Your task to perform on an android device: Check the weather Image 0: 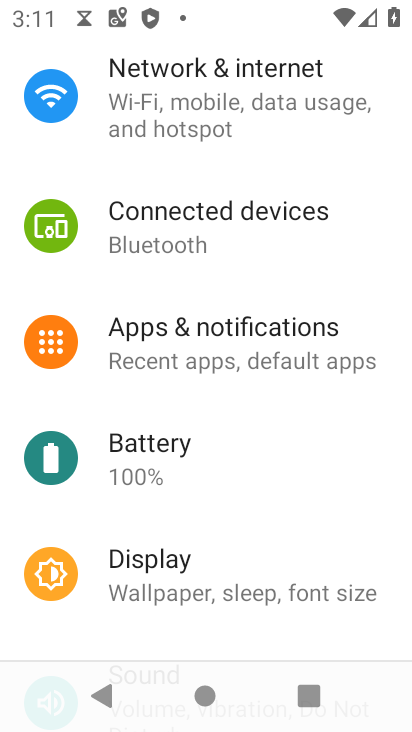
Step 0: press home button
Your task to perform on an android device: Check the weather Image 1: 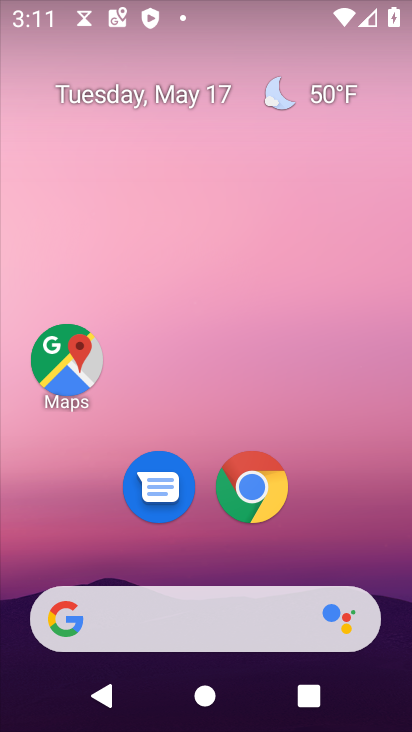
Step 1: click (313, 100)
Your task to perform on an android device: Check the weather Image 2: 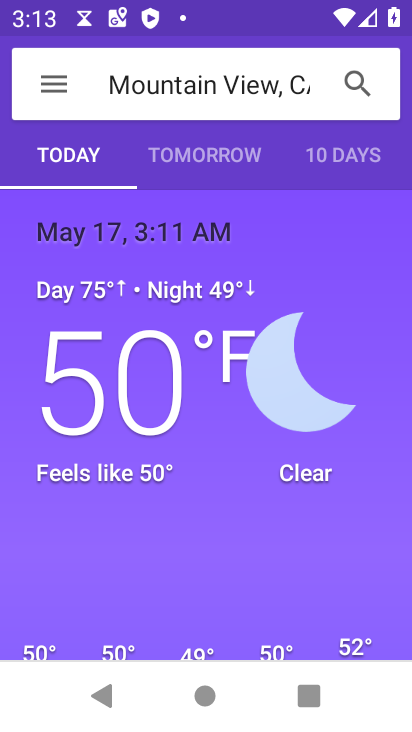
Step 2: task complete